Your task to perform on an android device: Empty the shopping cart on bestbuy. Add "alienware area 51" to the cart on bestbuy, then select checkout. Image 0: 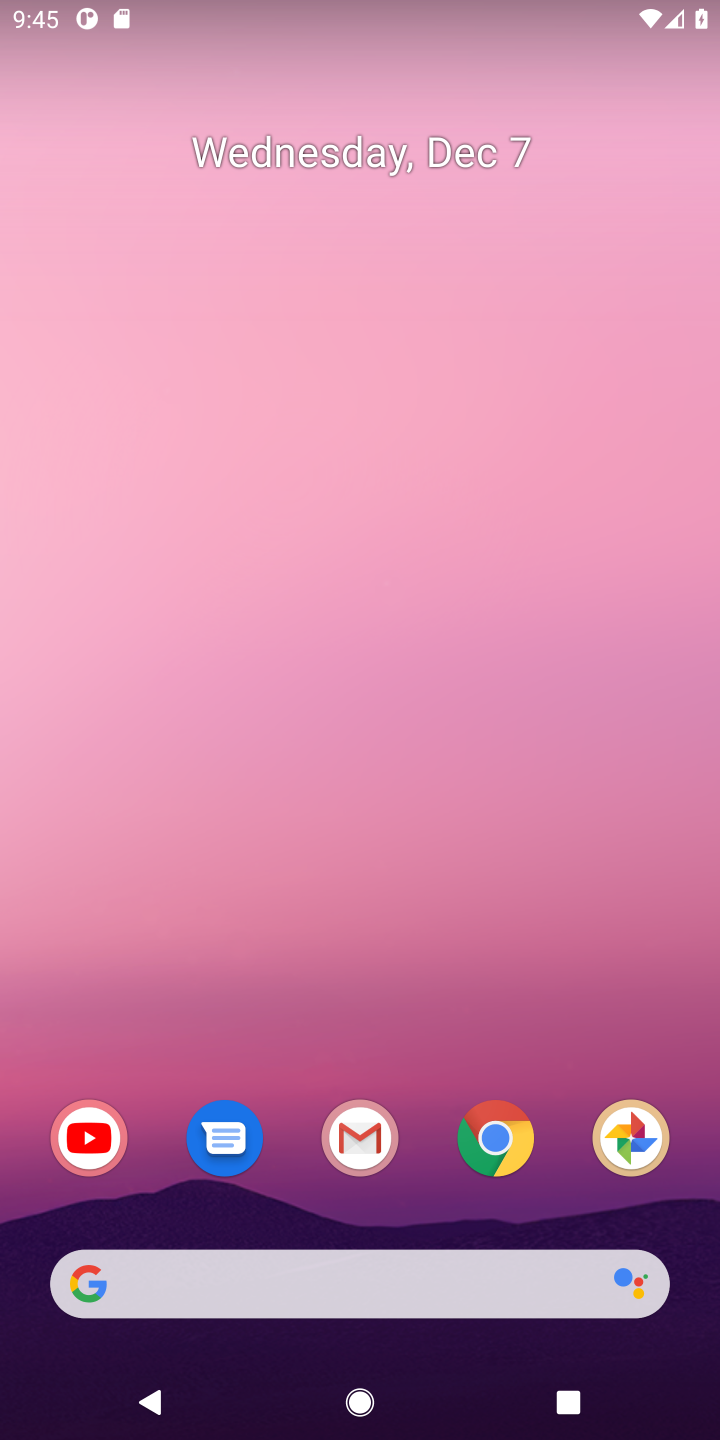
Step 0: press home button
Your task to perform on an android device: Empty the shopping cart on bestbuy. Add "alienware area 51" to the cart on bestbuy, then select checkout. Image 1: 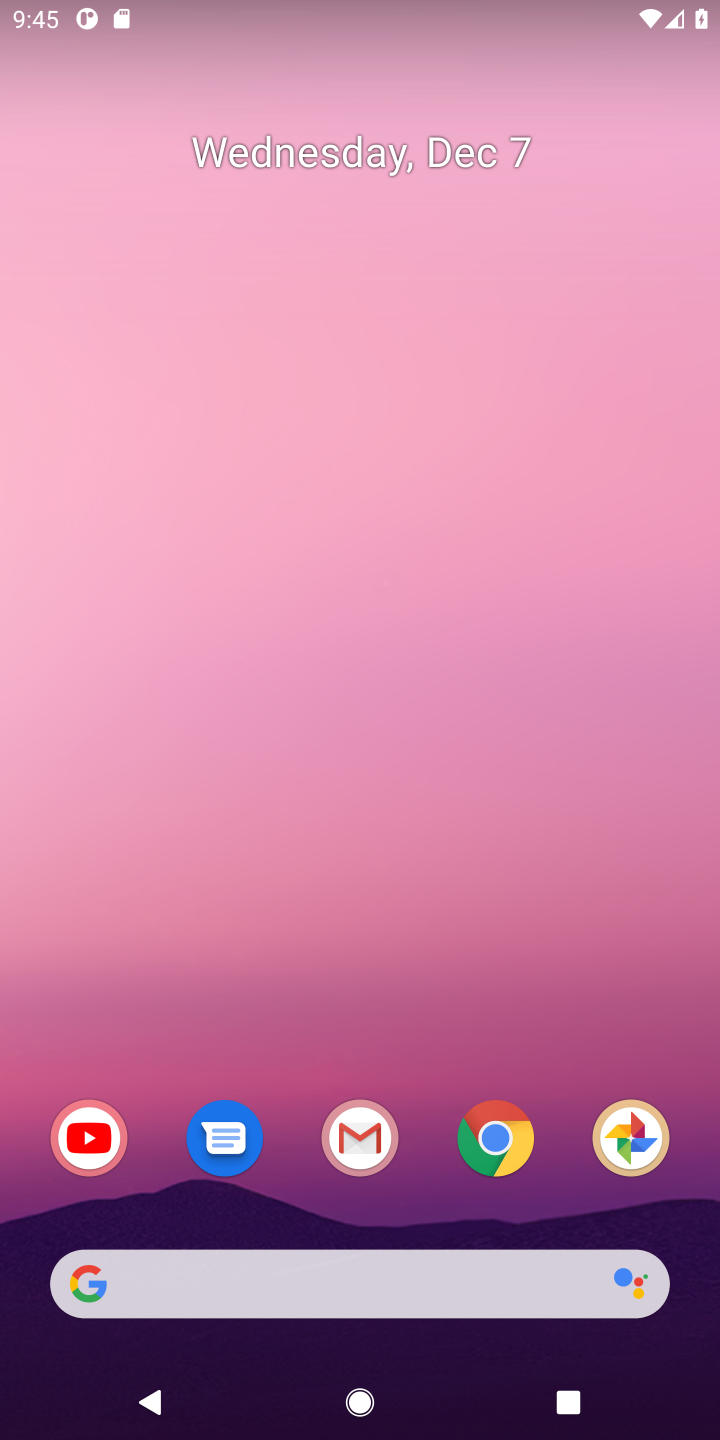
Step 1: click (124, 1294)
Your task to perform on an android device: Empty the shopping cart on bestbuy. Add "alienware area 51" to the cart on bestbuy, then select checkout. Image 2: 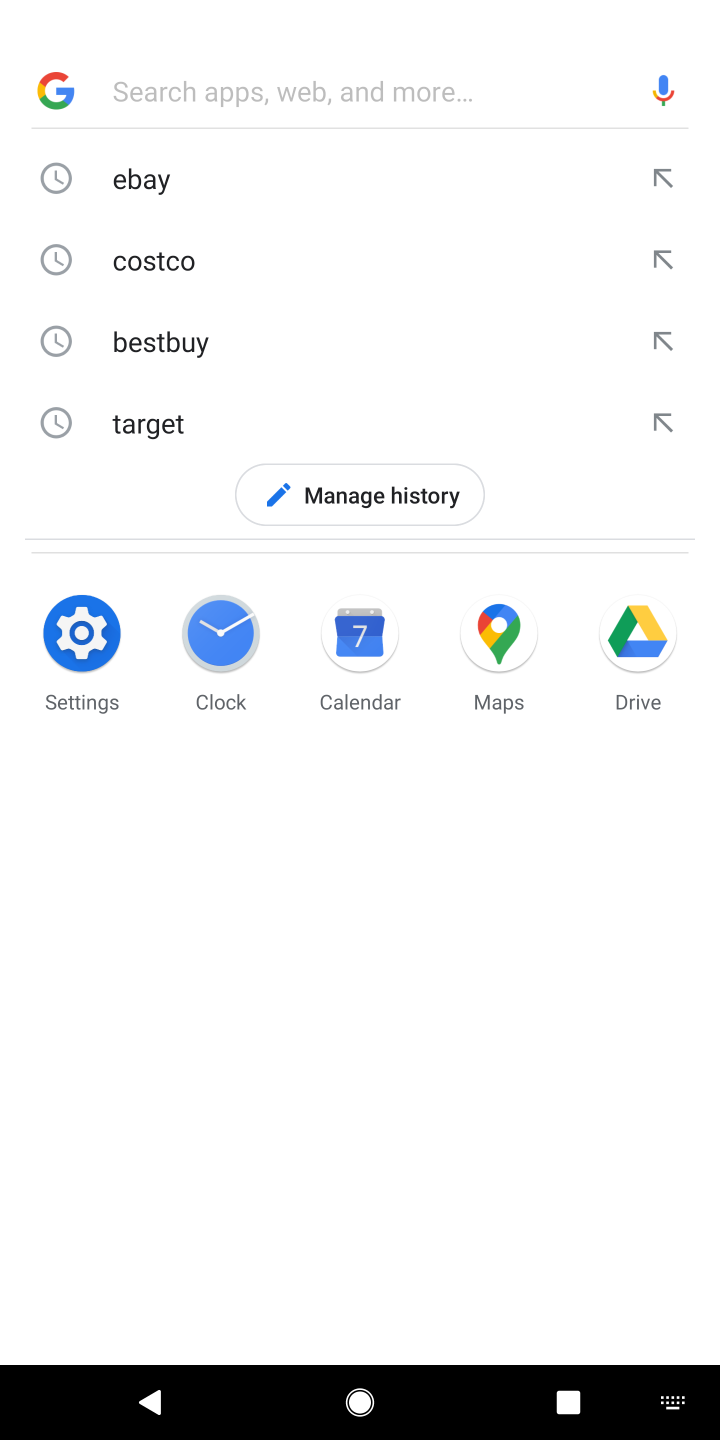
Step 2: press enter
Your task to perform on an android device: Empty the shopping cart on bestbuy. Add "alienware area 51" to the cart on bestbuy, then select checkout. Image 3: 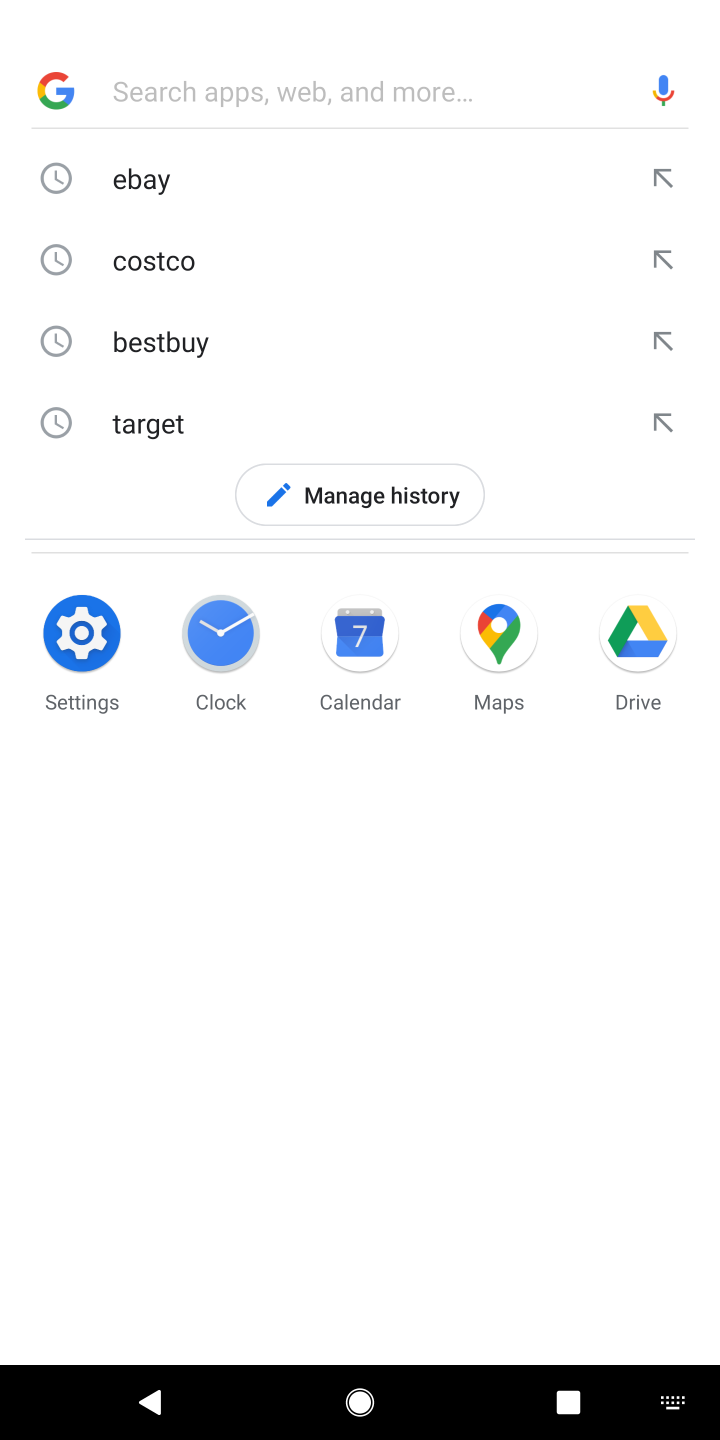
Step 3: type " bestbuy"
Your task to perform on an android device: Empty the shopping cart on bestbuy. Add "alienware area 51" to the cart on bestbuy, then select checkout. Image 4: 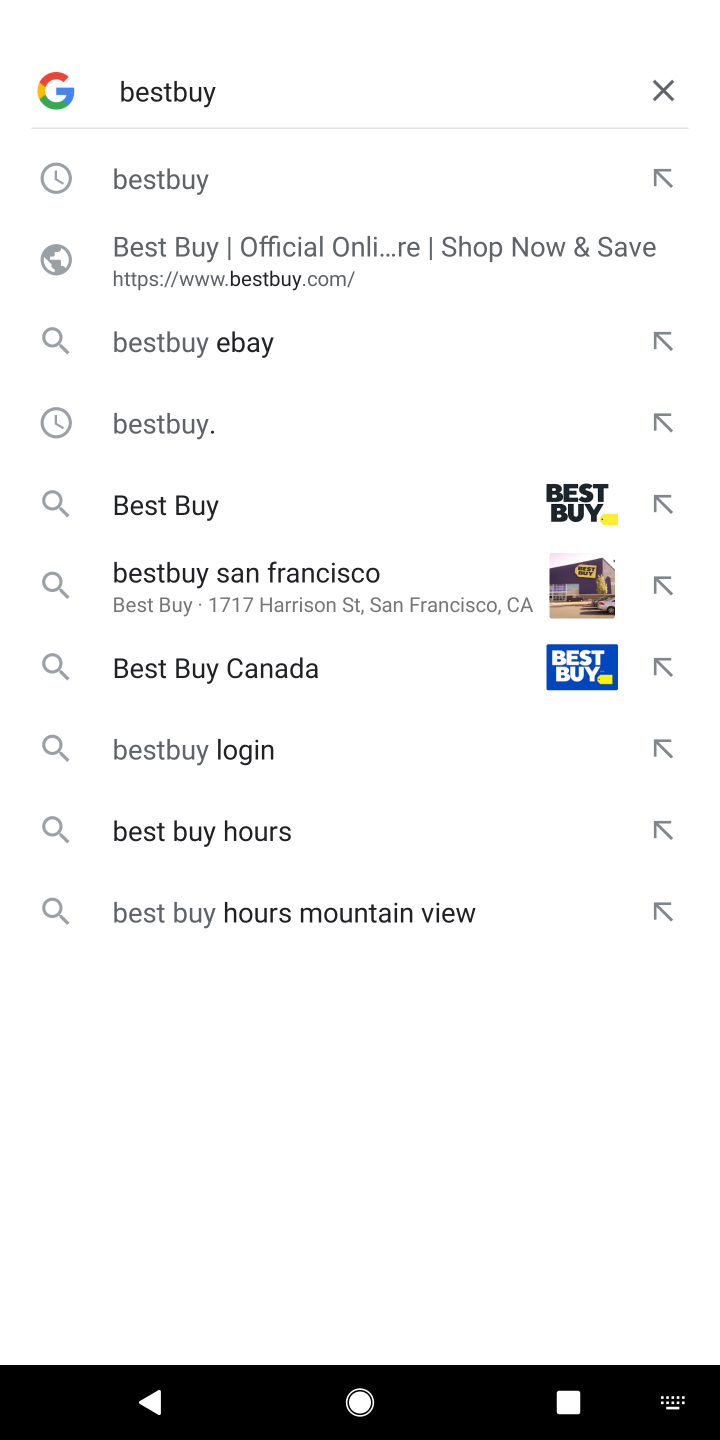
Step 4: press enter
Your task to perform on an android device: Empty the shopping cart on bestbuy. Add "alienware area 51" to the cart on bestbuy, then select checkout. Image 5: 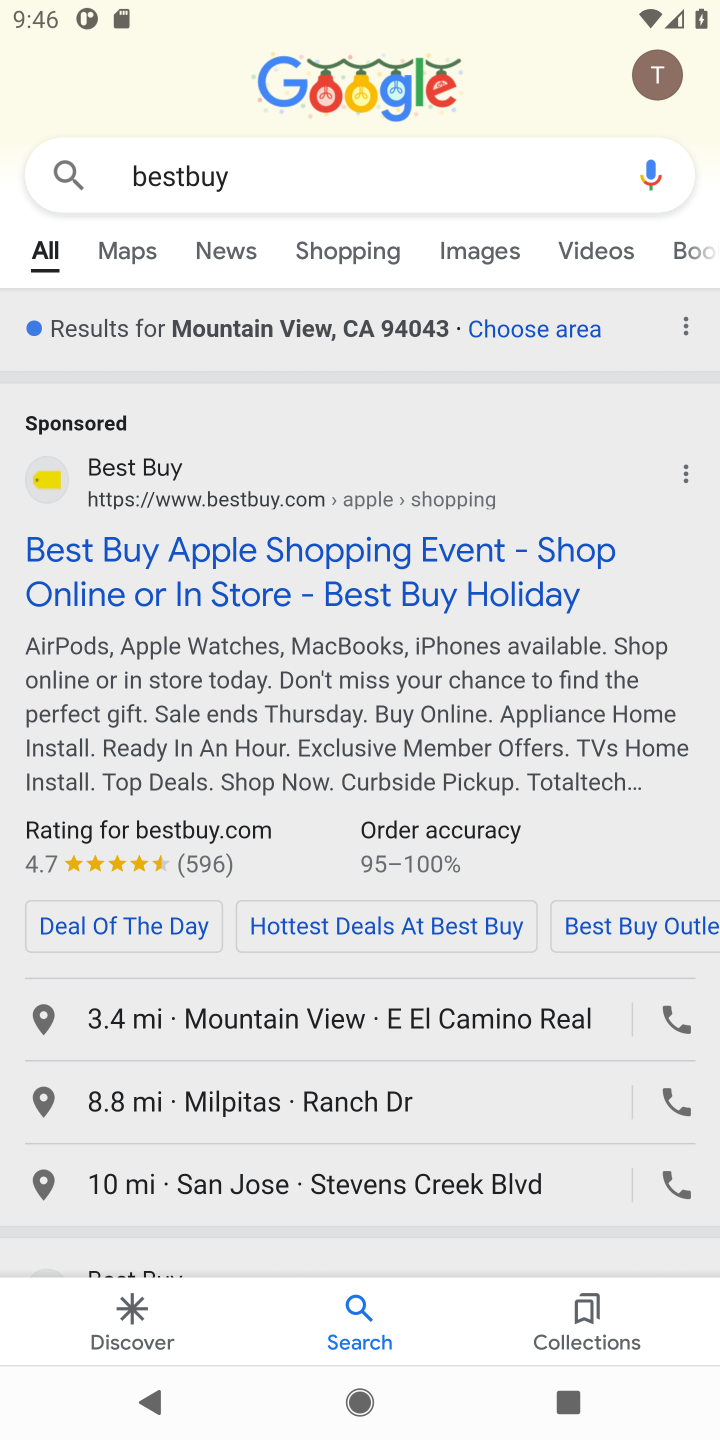
Step 5: click (268, 590)
Your task to perform on an android device: Empty the shopping cart on bestbuy. Add "alienware area 51" to the cart on bestbuy, then select checkout. Image 6: 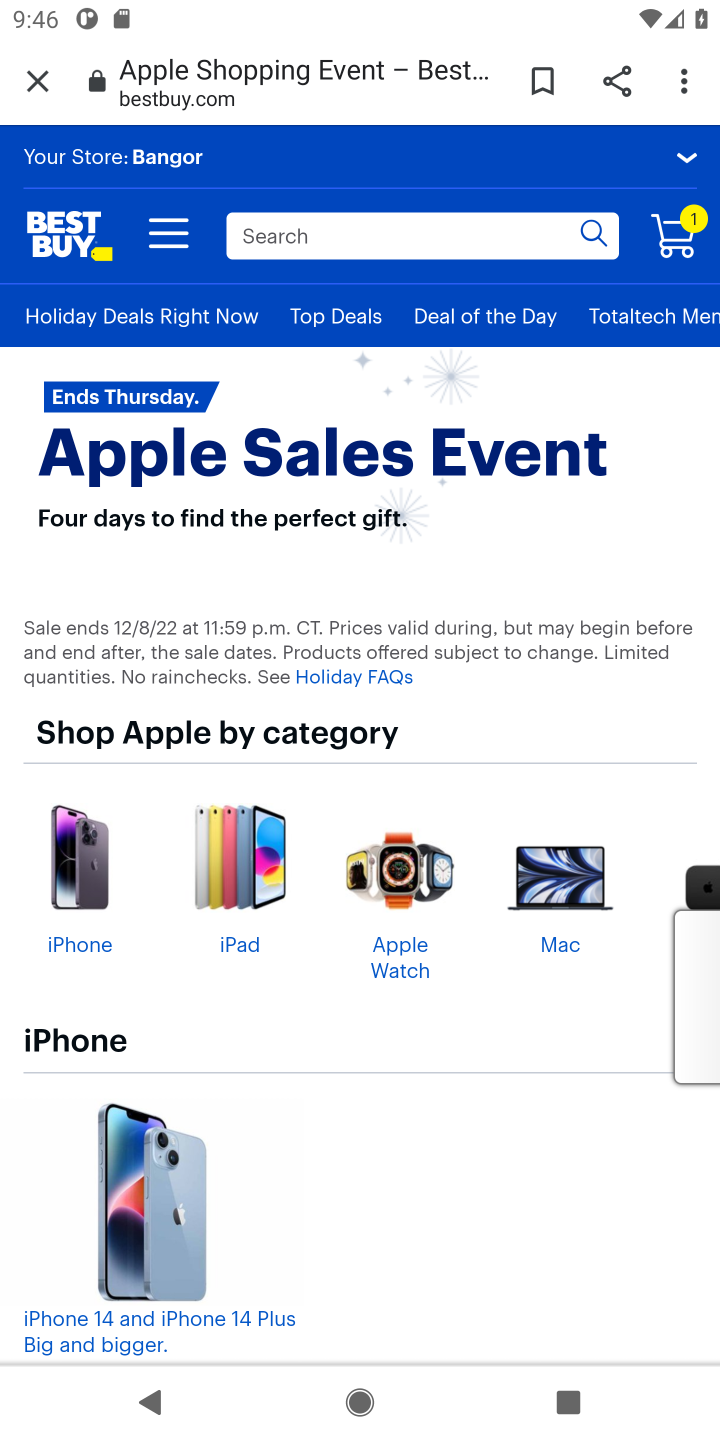
Step 6: click (683, 235)
Your task to perform on an android device: Empty the shopping cart on bestbuy. Add "alienware area 51" to the cart on bestbuy, then select checkout. Image 7: 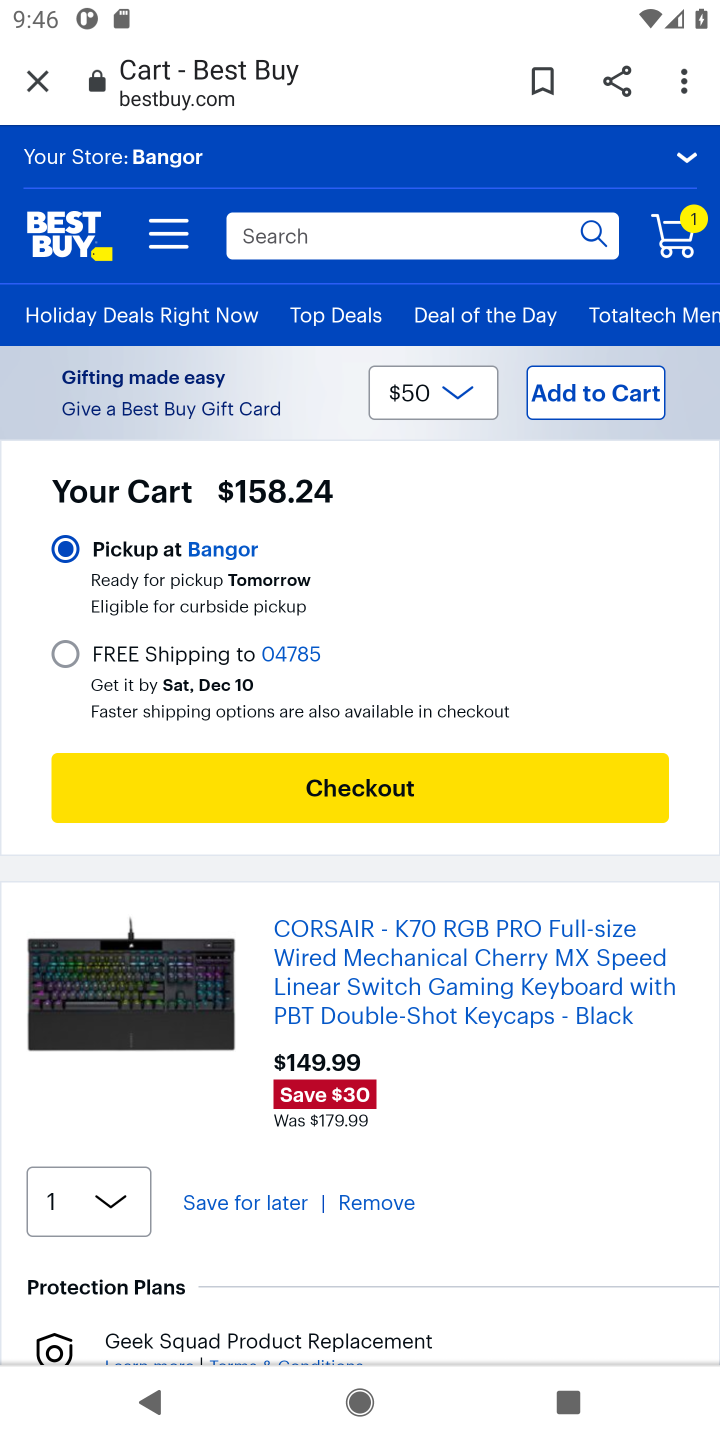
Step 7: click (373, 1204)
Your task to perform on an android device: Empty the shopping cart on bestbuy. Add "alienware area 51" to the cart on bestbuy, then select checkout. Image 8: 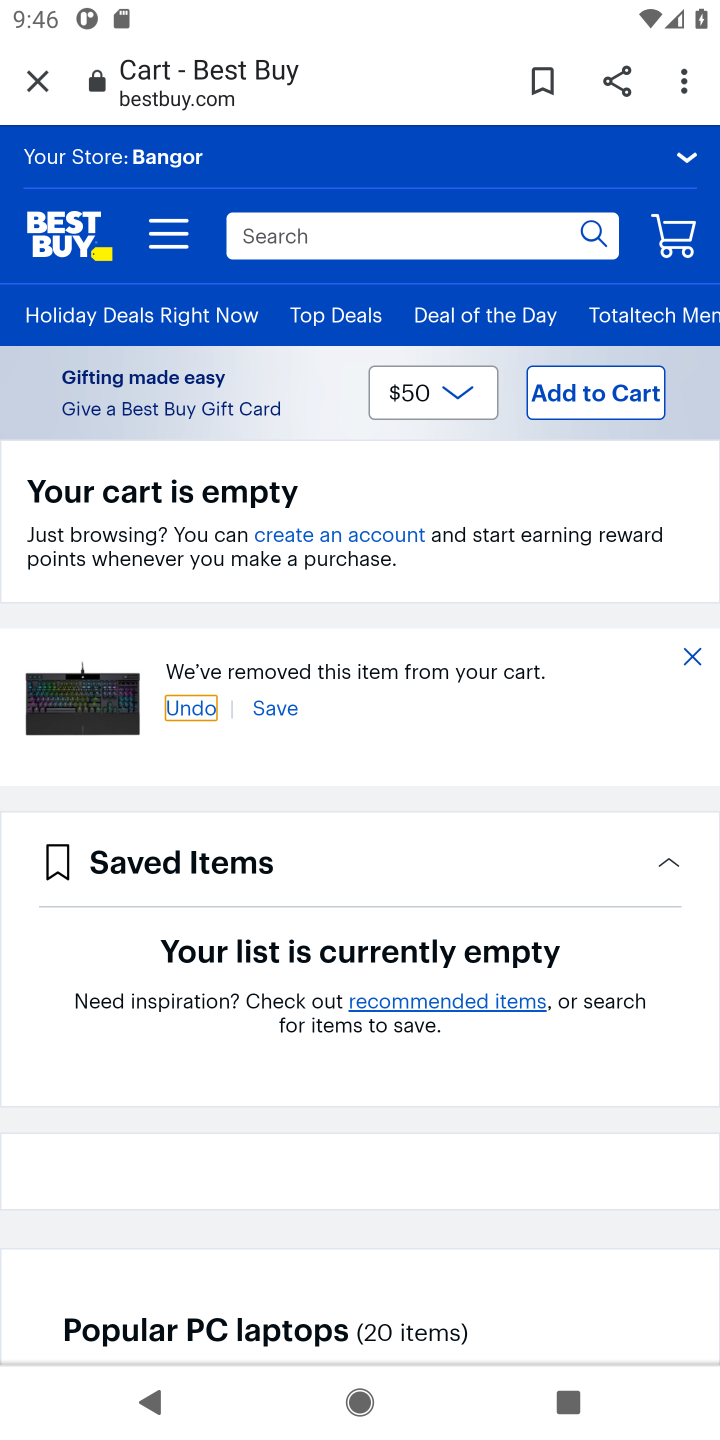
Step 8: click (284, 232)
Your task to perform on an android device: Empty the shopping cart on bestbuy. Add "alienware area 51" to the cart on bestbuy, then select checkout. Image 9: 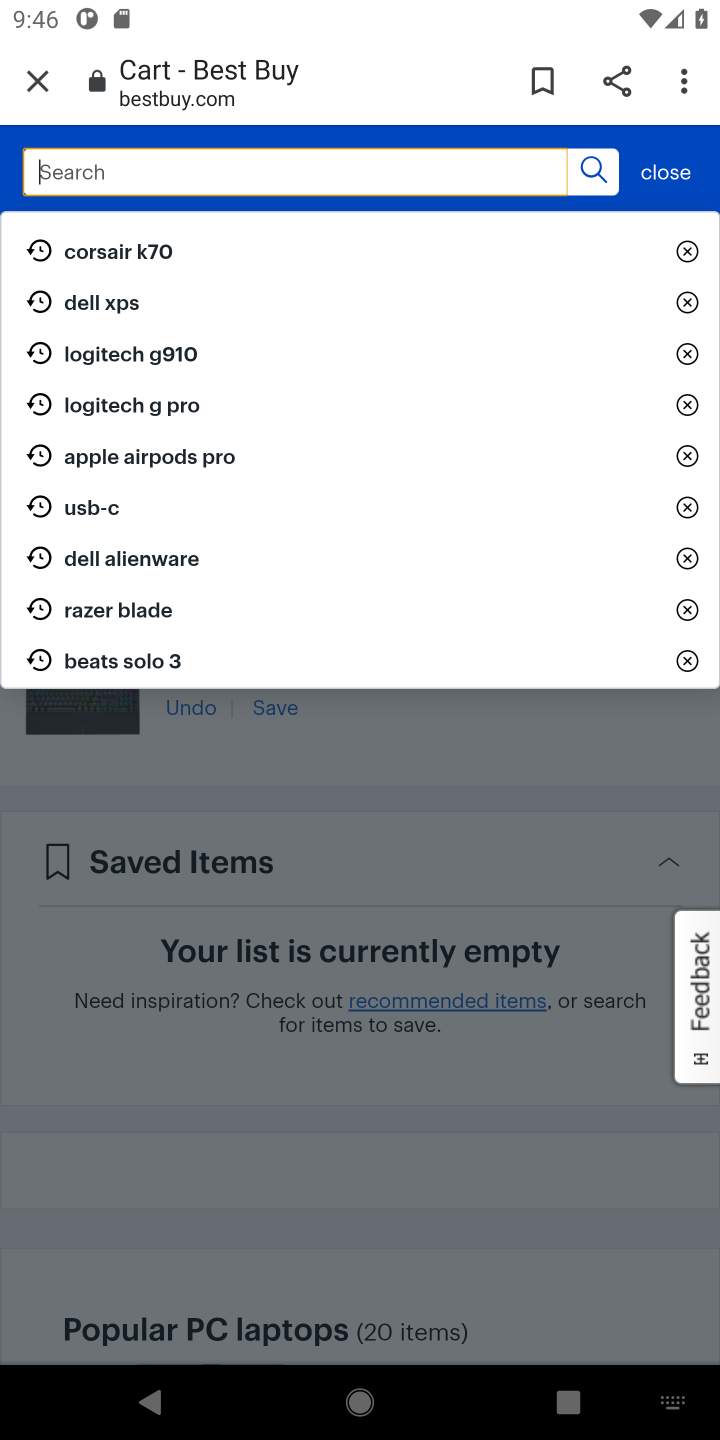
Step 9: press enter
Your task to perform on an android device: Empty the shopping cart on bestbuy. Add "alienware area 51" to the cart on bestbuy, then select checkout. Image 10: 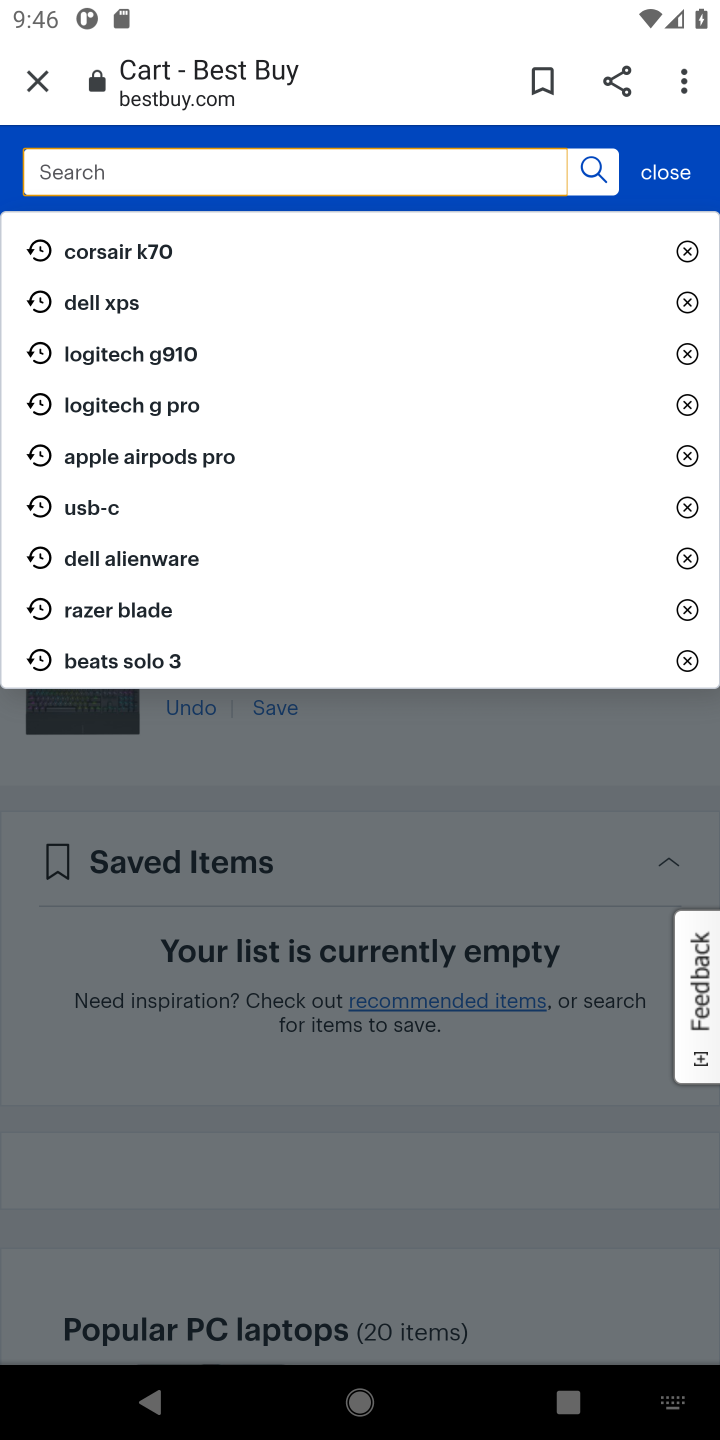
Step 10: type "alienware area 51"
Your task to perform on an android device: Empty the shopping cart on bestbuy. Add "alienware area 51" to the cart on bestbuy, then select checkout. Image 11: 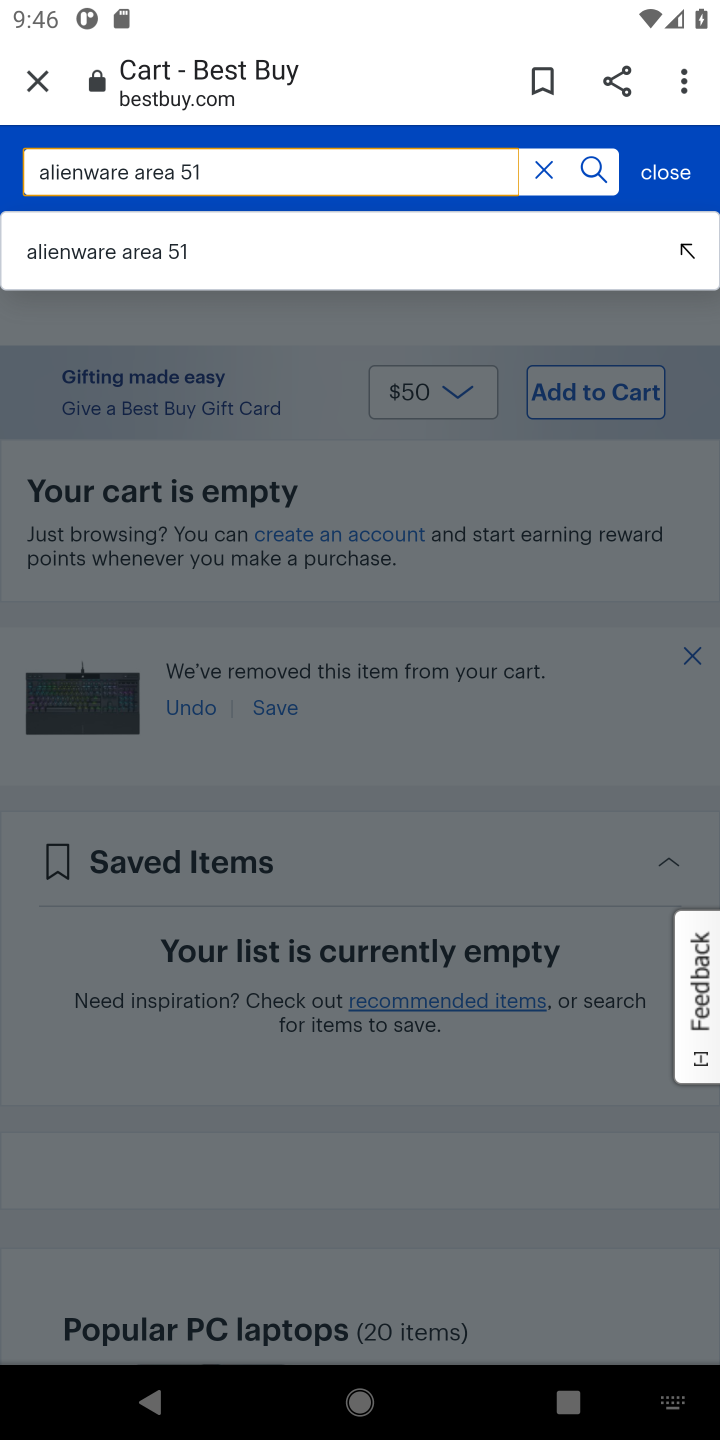
Step 11: click (584, 163)
Your task to perform on an android device: Empty the shopping cart on bestbuy. Add "alienware area 51" to the cart on bestbuy, then select checkout. Image 12: 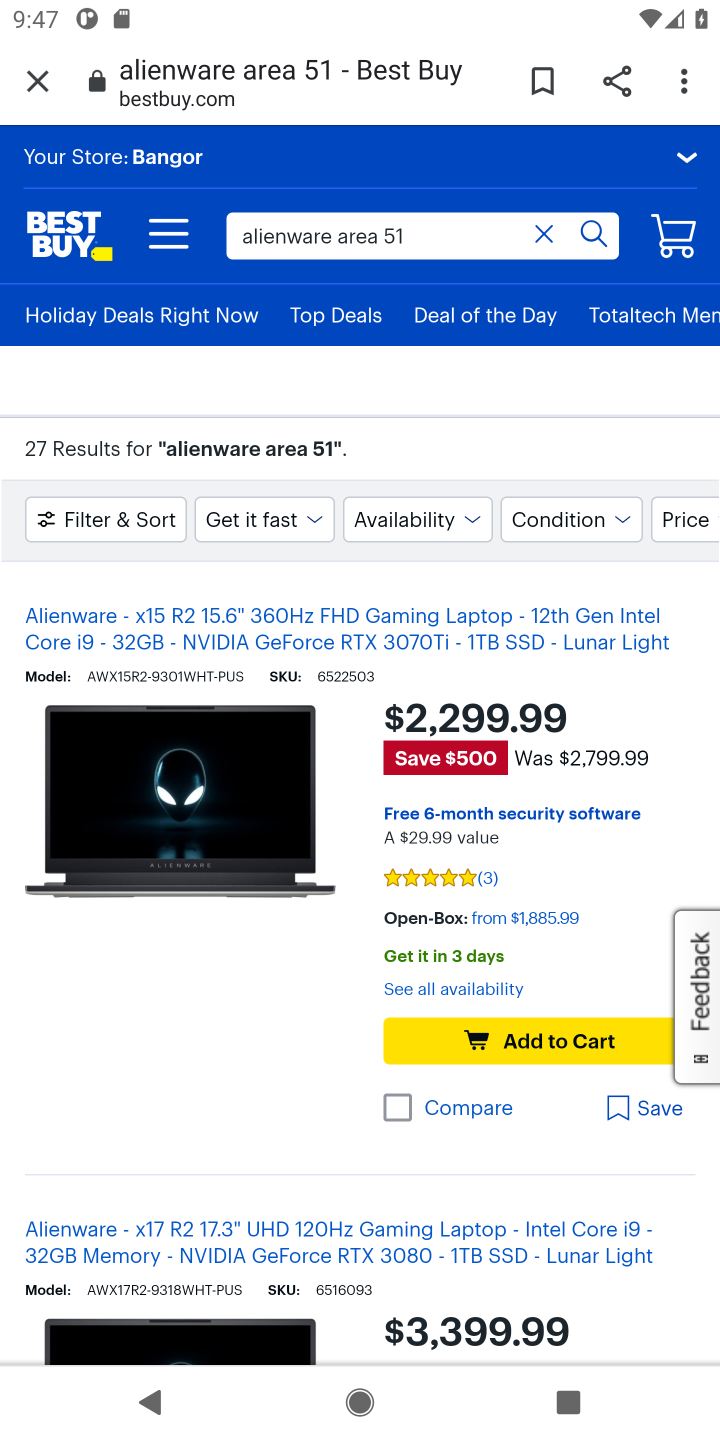
Step 12: task complete